Your task to perform on an android device: Show me popular games on the Play Store Image 0: 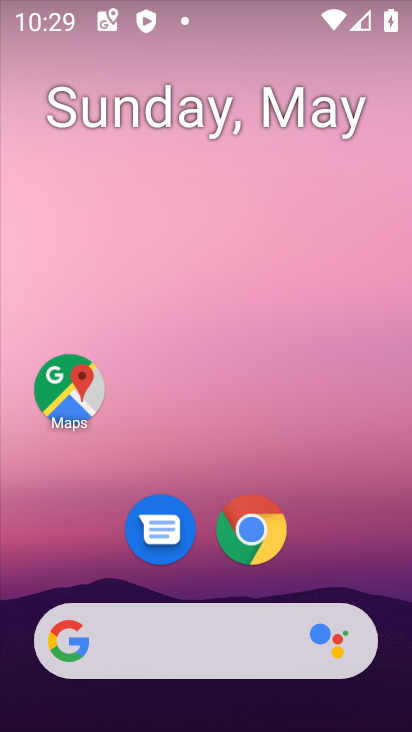
Step 0: drag from (186, 617) to (195, 114)
Your task to perform on an android device: Show me popular games on the Play Store Image 1: 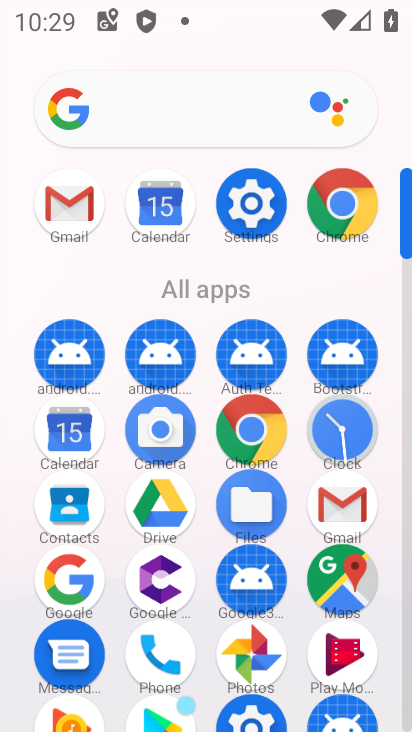
Step 1: drag from (189, 625) to (161, 194)
Your task to perform on an android device: Show me popular games on the Play Store Image 2: 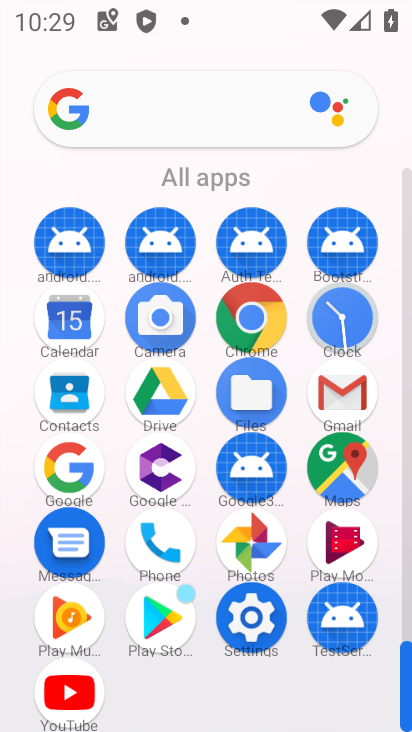
Step 2: click (157, 638)
Your task to perform on an android device: Show me popular games on the Play Store Image 3: 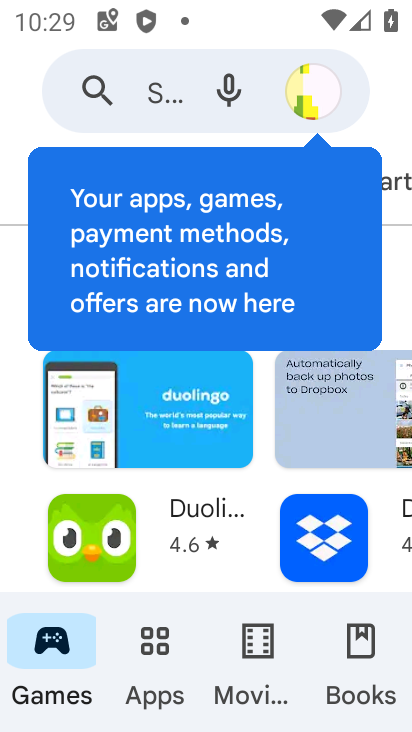
Step 3: drag from (227, 518) to (76, 57)
Your task to perform on an android device: Show me popular games on the Play Store Image 4: 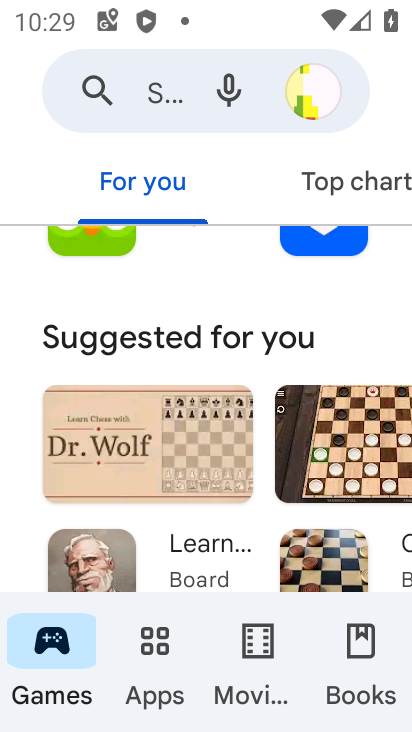
Step 4: drag from (211, 462) to (149, 71)
Your task to perform on an android device: Show me popular games on the Play Store Image 5: 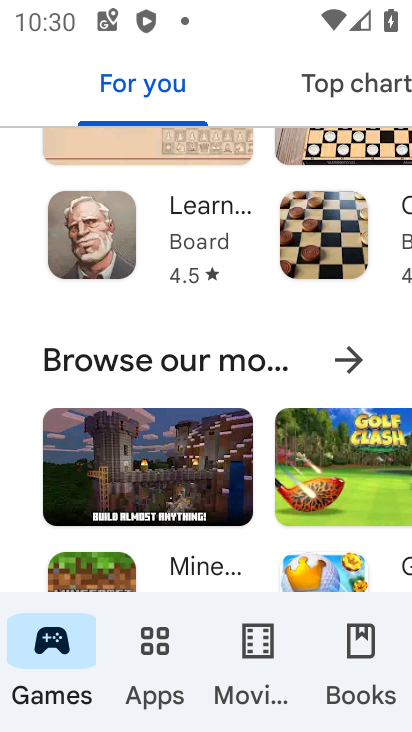
Step 5: click (328, 357)
Your task to perform on an android device: Show me popular games on the Play Store Image 6: 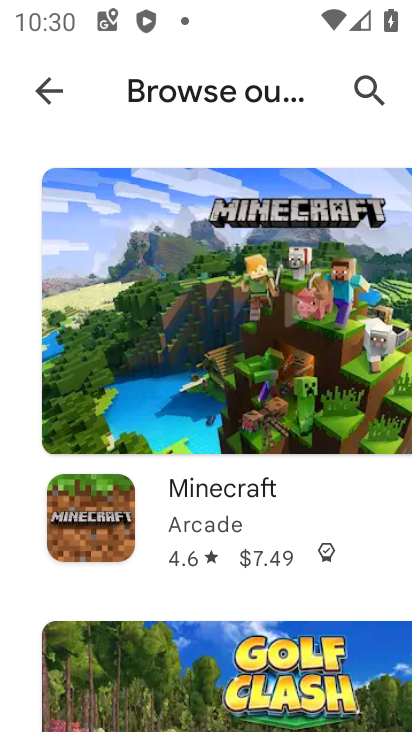
Step 6: task complete